Your task to perform on an android device: remove spam from my inbox in the gmail app Image 0: 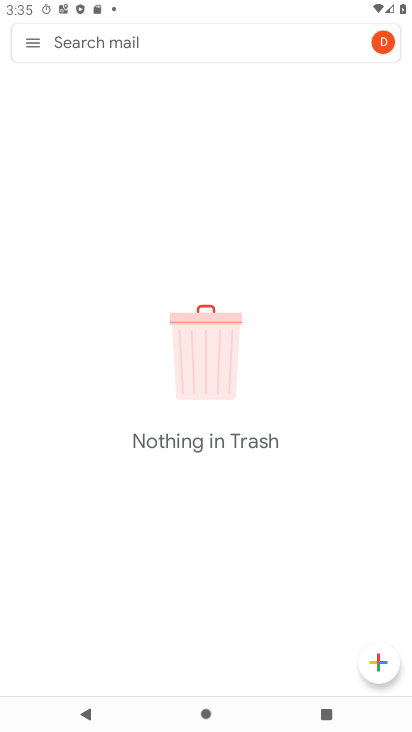
Step 0: press home button
Your task to perform on an android device: remove spam from my inbox in the gmail app Image 1: 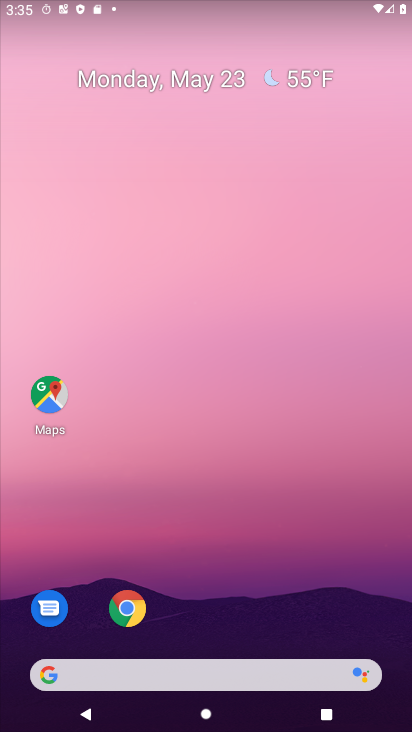
Step 1: drag from (272, 597) to (202, 46)
Your task to perform on an android device: remove spam from my inbox in the gmail app Image 2: 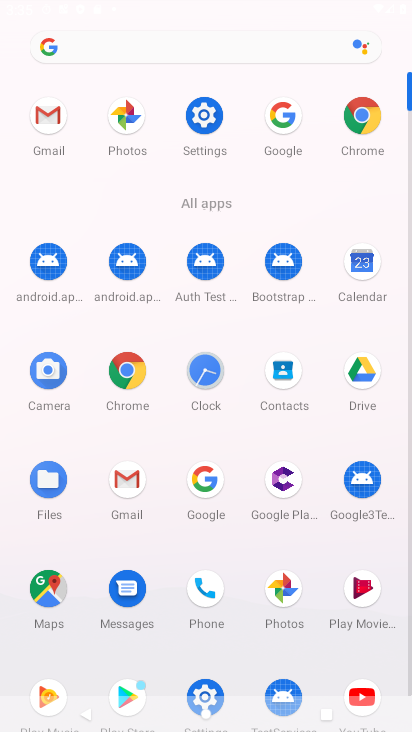
Step 2: click (132, 471)
Your task to perform on an android device: remove spam from my inbox in the gmail app Image 3: 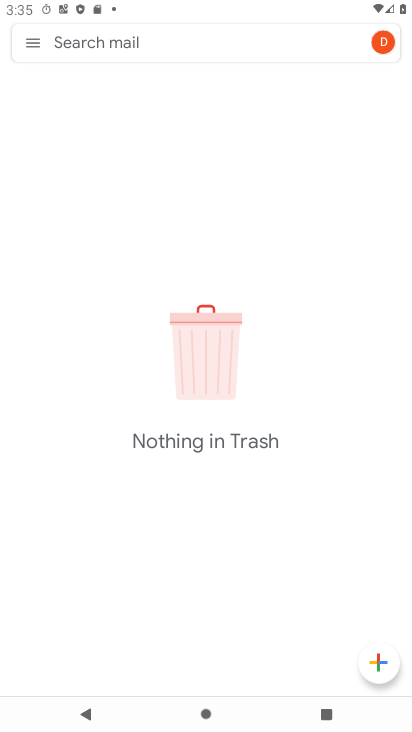
Step 3: click (25, 42)
Your task to perform on an android device: remove spam from my inbox in the gmail app Image 4: 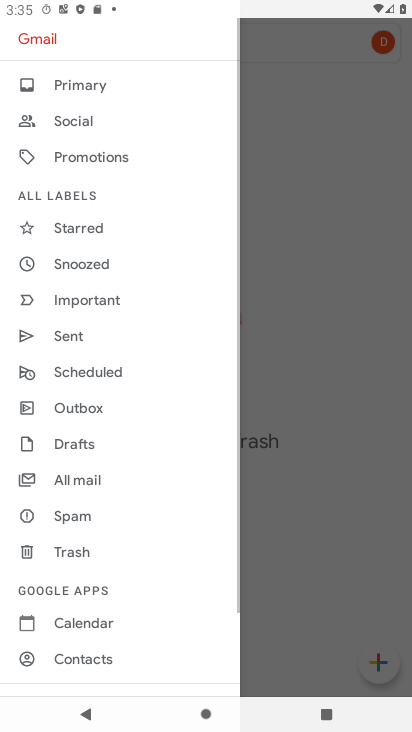
Step 4: click (94, 522)
Your task to perform on an android device: remove spam from my inbox in the gmail app Image 5: 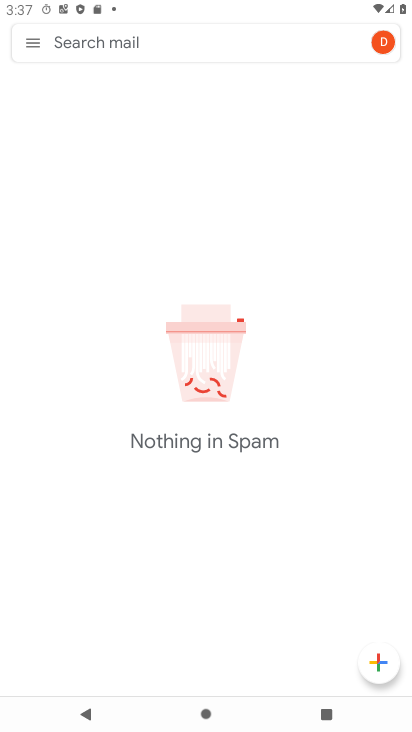
Step 5: task complete